Your task to perform on an android device: turn smart compose on in the gmail app Image 0: 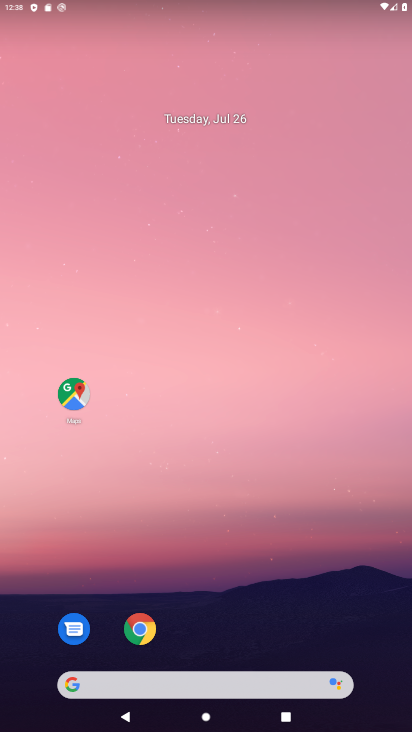
Step 0: drag from (380, 606) to (322, 139)
Your task to perform on an android device: turn smart compose on in the gmail app Image 1: 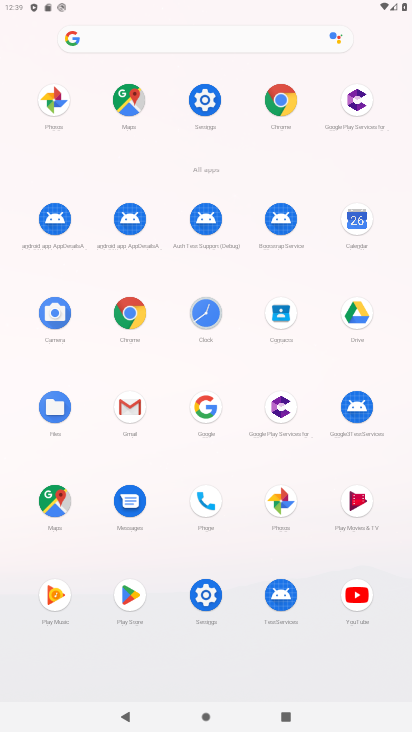
Step 1: click (121, 410)
Your task to perform on an android device: turn smart compose on in the gmail app Image 2: 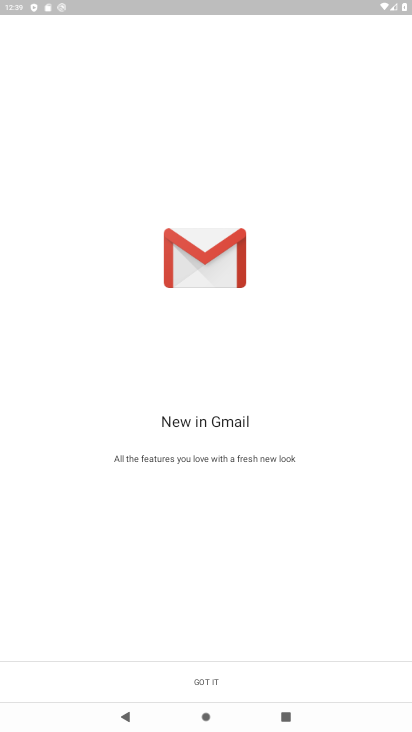
Step 2: click (193, 684)
Your task to perform on an android device: turn smart compose on in the gmail app Image 3: 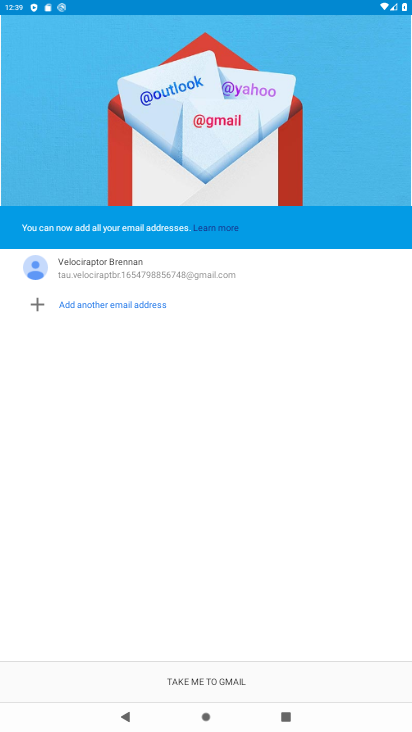
Step 3: click (193, 684)
Your task to perform on an android device: turn smart compose on in the gmail app Image 4: 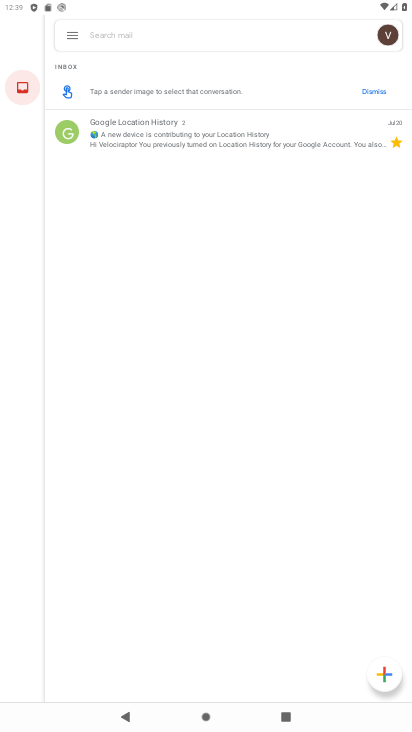
Step 4: click (69, 32)
Your task to perform on an android device: turn smart compose on in the gmail app Image 5: 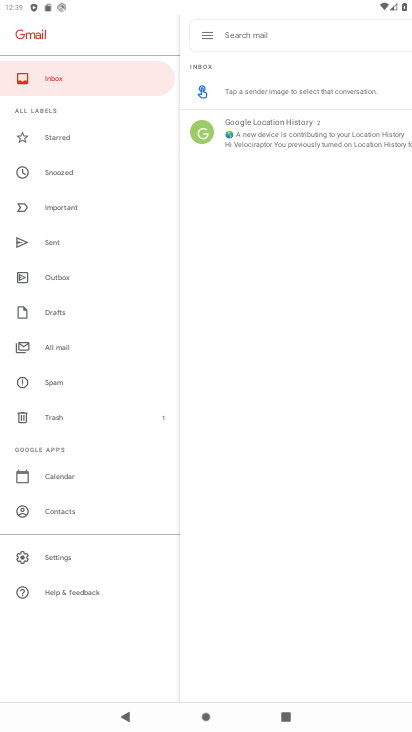
Step 5: click (62, 558)
Your task to perform on an android device: turn smart compose on in the gmail app Image 6: 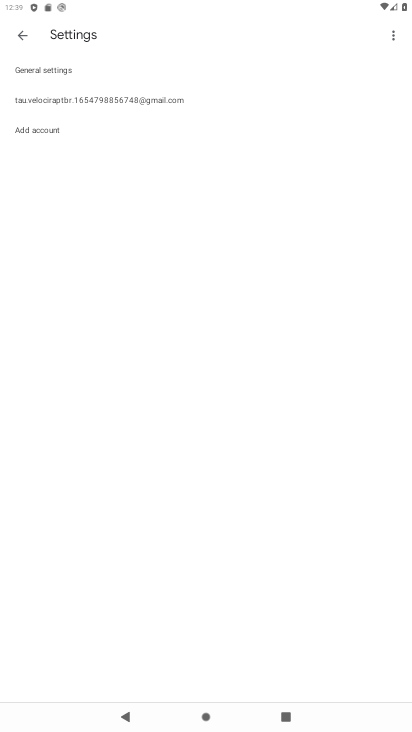
Step 6: click (79, 100)
Your task to perform on an android device: turn smart compose on in the gmail app Image 7: 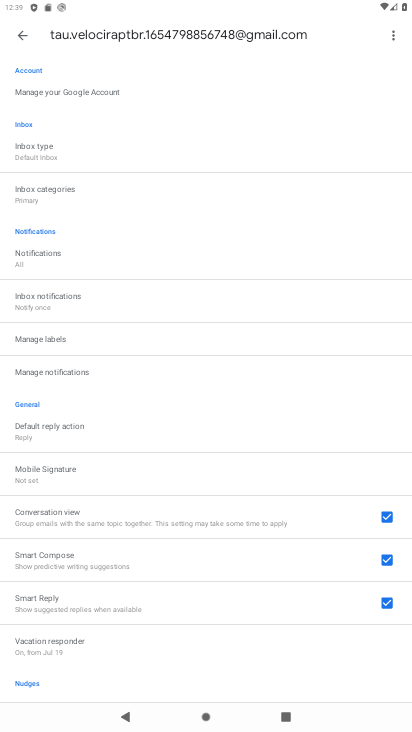
Step 7: task complete